Your task to perform on an android device: Clear the shopping cart on walmart.com. Search for macbook on walmart.com, select the first entry, add it to the cart, then select checkout. Image 0: 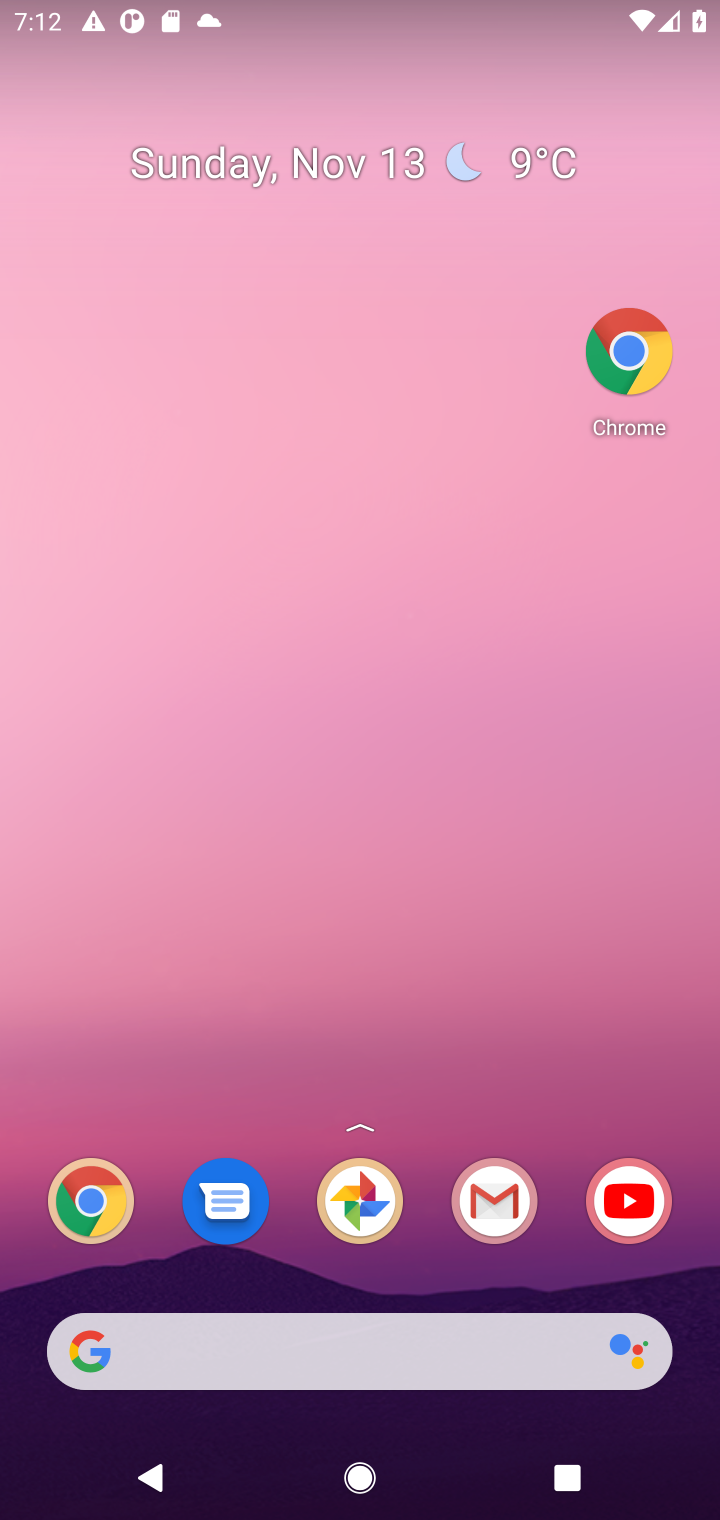
Step 0: drag from (422, 1286) to (255, 97)
Your task to perform on an android device: Clear the shopping cart on walmart.com. Search for macbook on walmart.com, select the first entry, add it to the cart, then select checkout. Image 1: 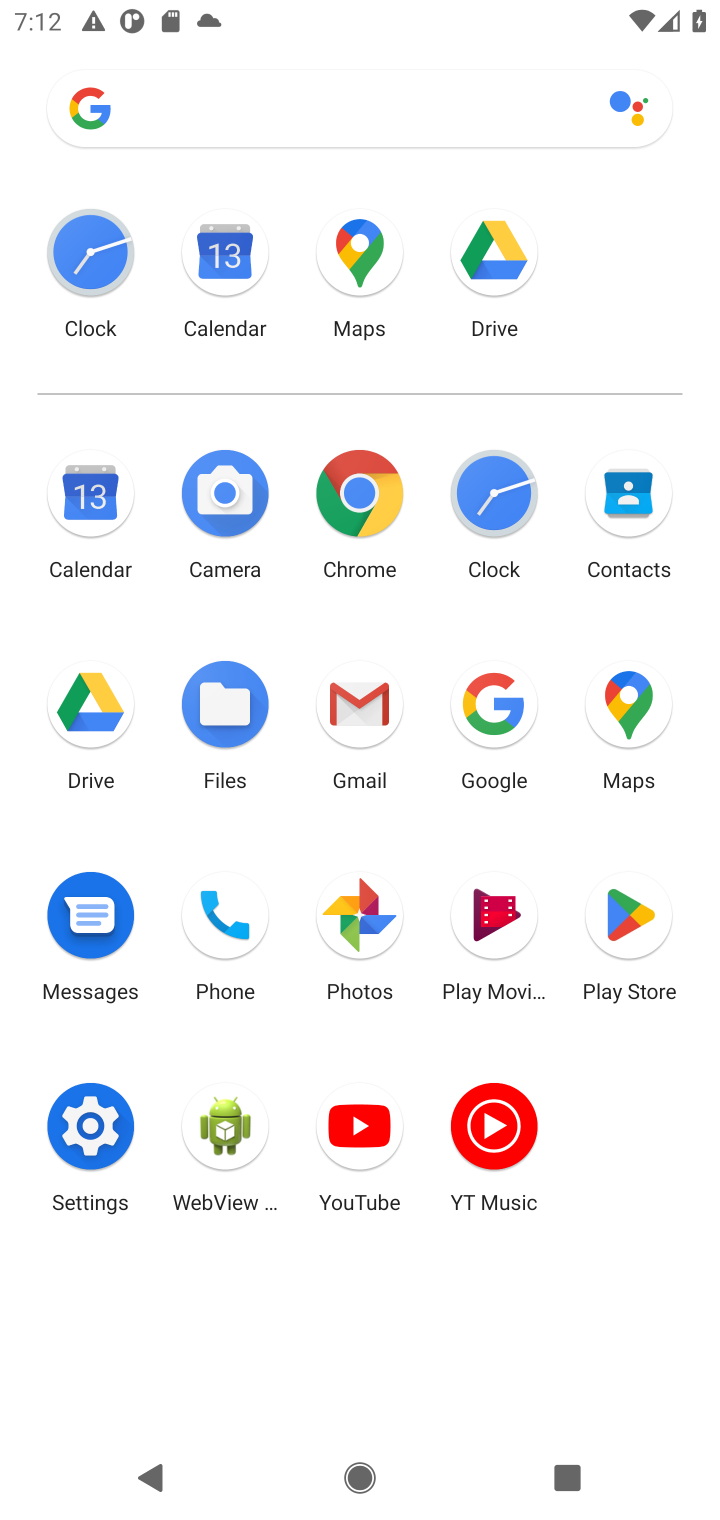
Step 1: click (357, 497)
Your task to perform on an android device: Clear the shopping cart on walmart.com. Search for macbook on walmart.com, select the first entry, add it to the cart, then select checkout. Image 2: 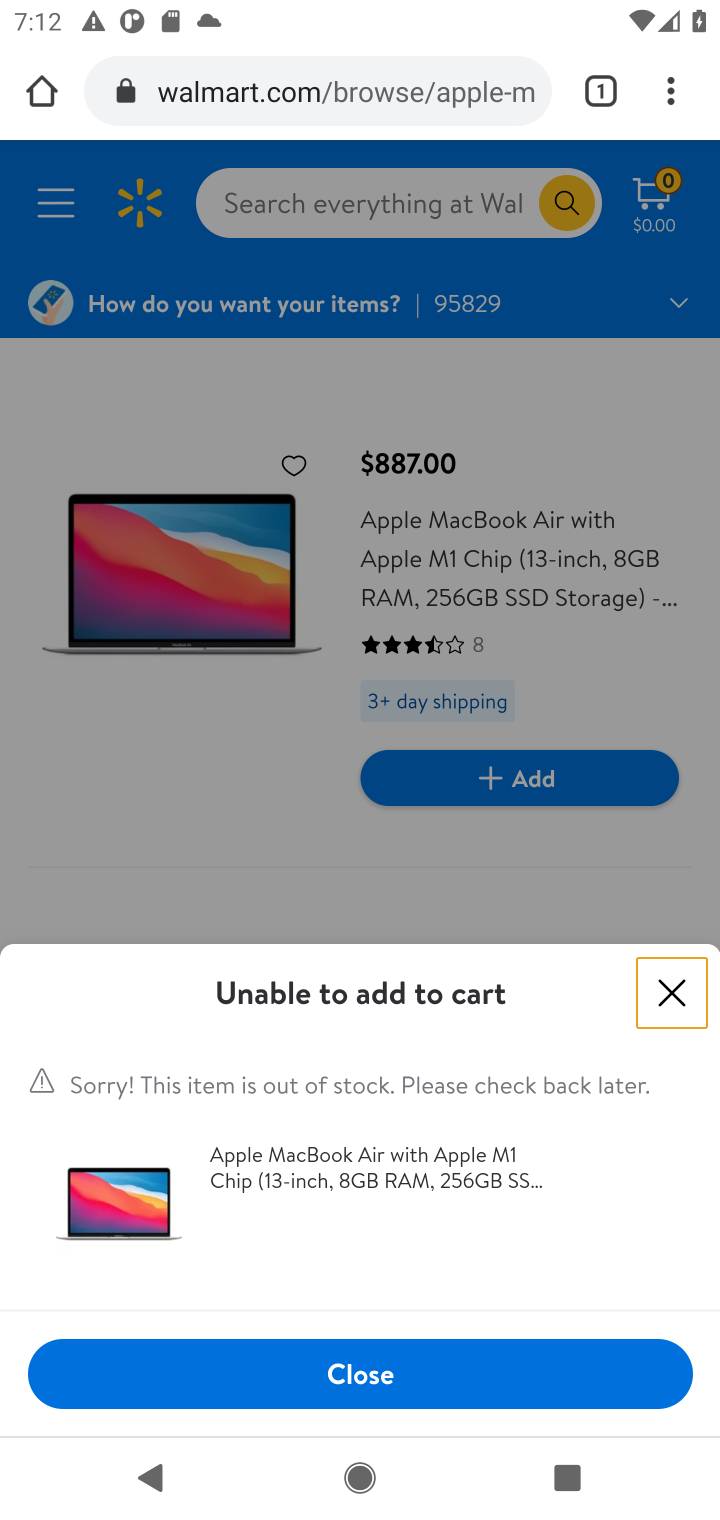
Step 2: click (504, 357)
Your task to perform on an android device: Clear the shopping cart on walmart.com. Search for macbook on walmart.com, select the first entry, add it to the cart, then select checkout. Image 3: 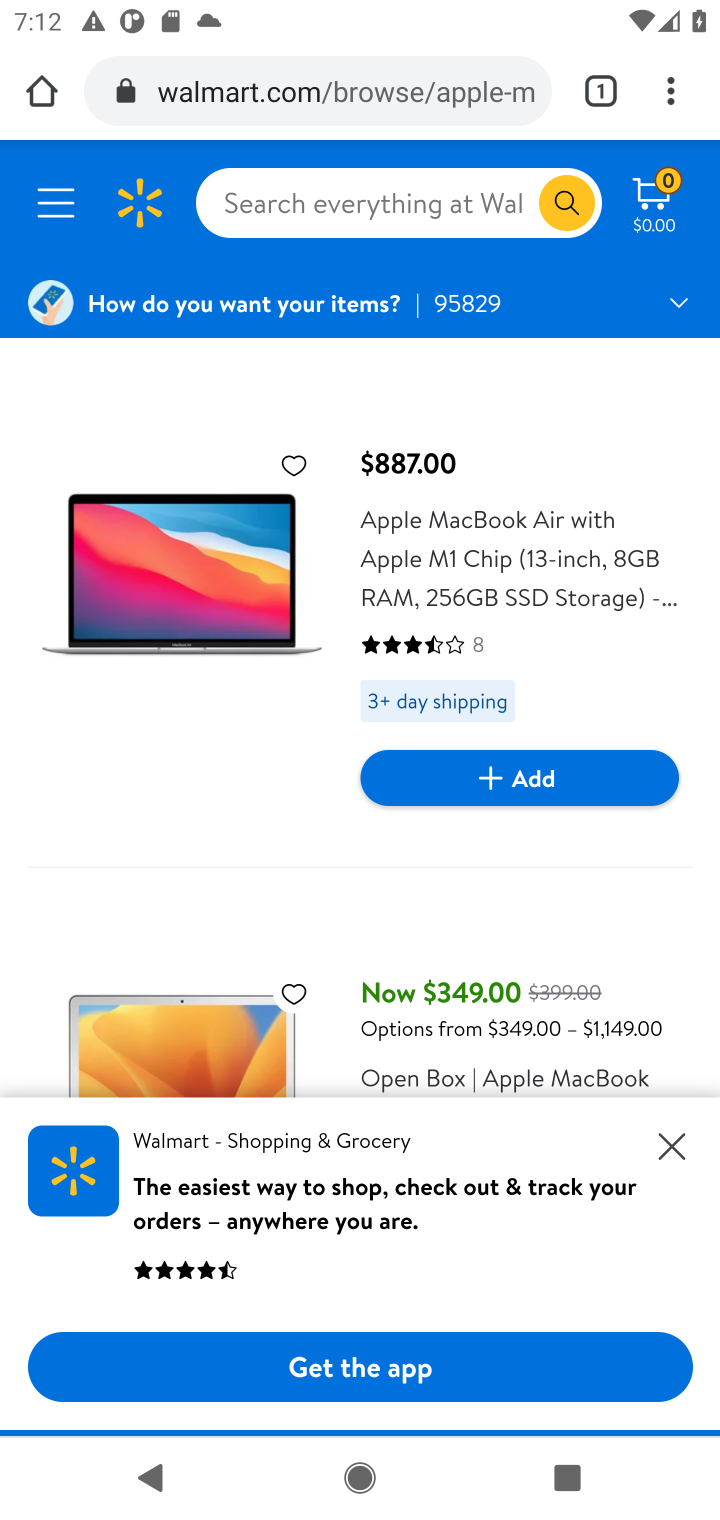
Step 3: click (645, 203)
Your task to perform on an android device: Clear the shopping cart on walmart.com. Search for macbook on walmart.com, select the first entry, add it to the cart, then select checkout. Image 4: 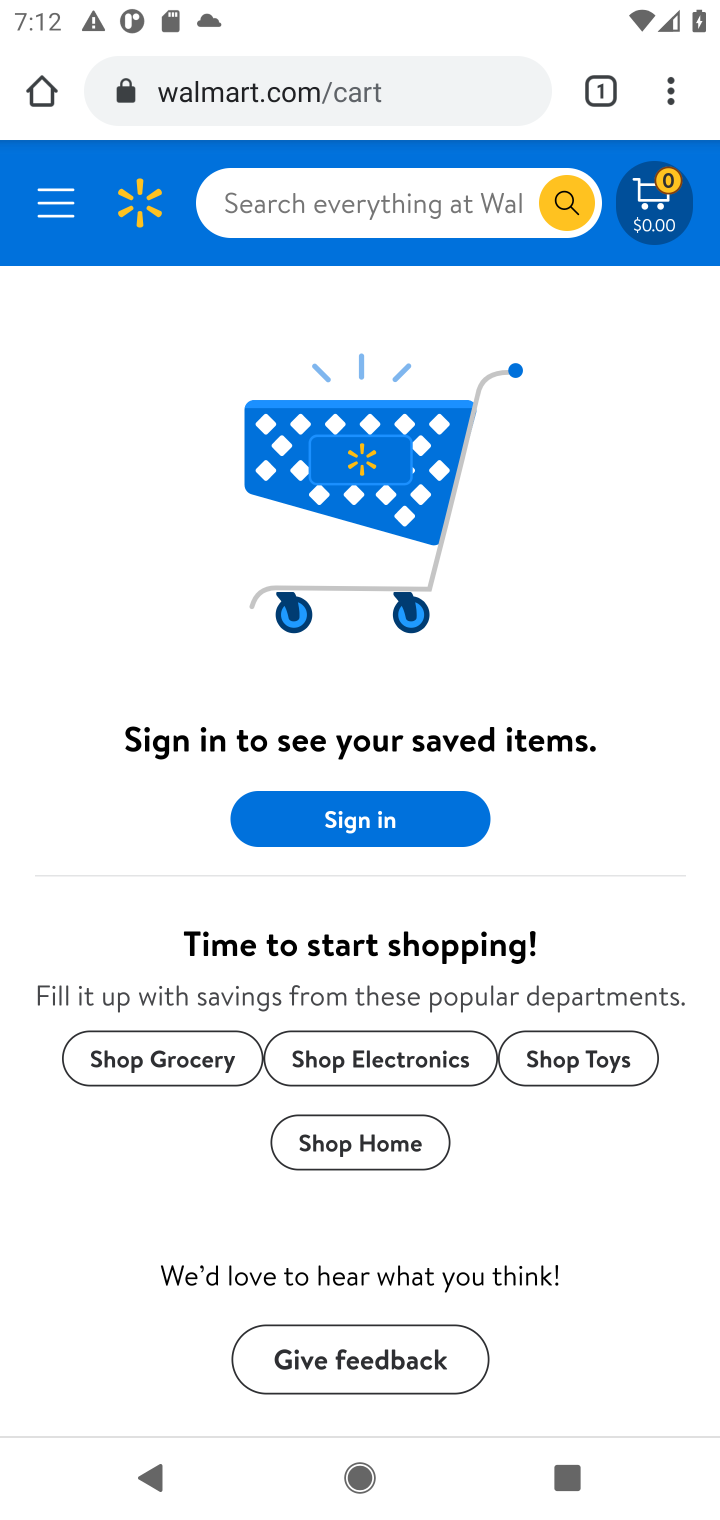
Step 4: click (352, 198)
Your task to perform on an android device: Clear the shopping cart on walmart.com. Search for macbook on walmart.com, select the first entry, add it to the cart, then select checkout. Image 5: 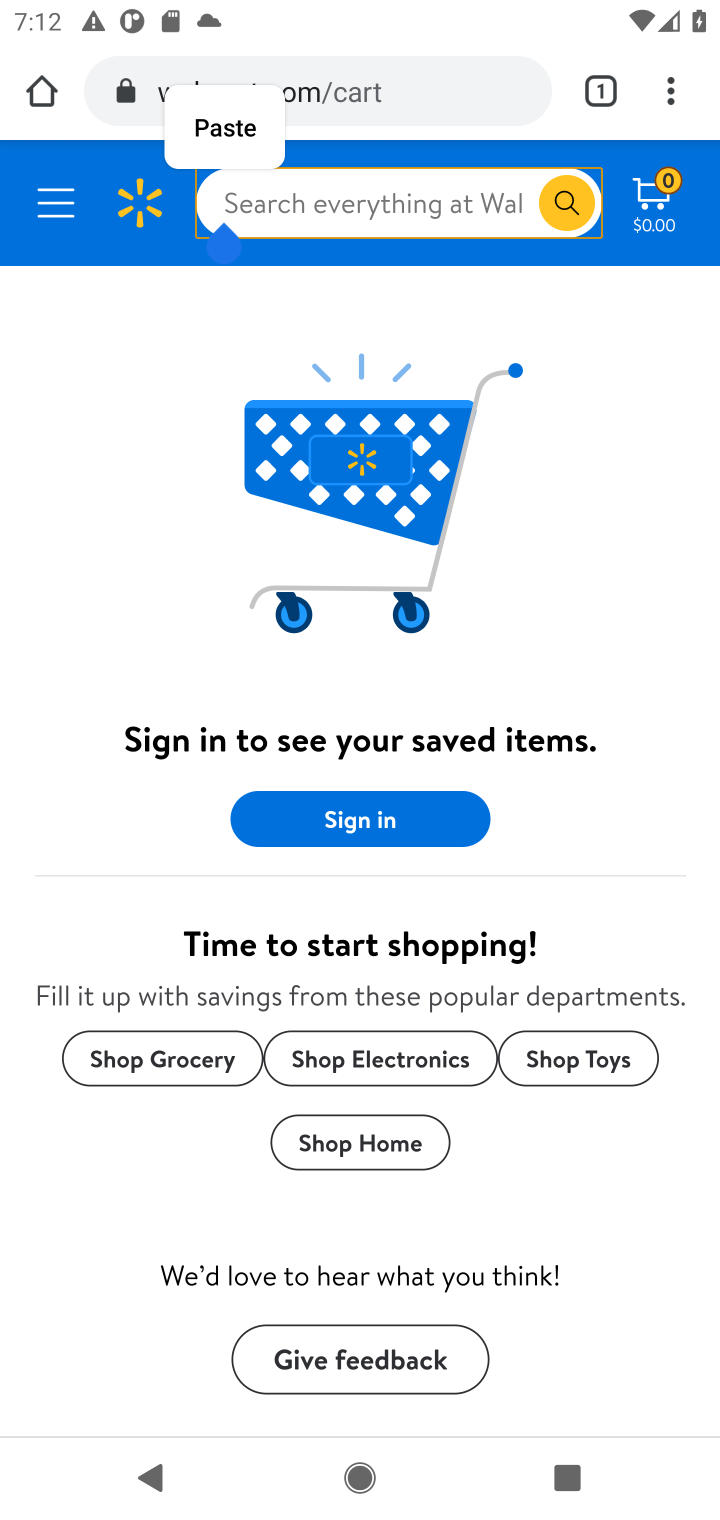
Step 5: type "macbookk"
Your task to perform on an android device: Clear the shopping cart on walmart.com. Search for macbook on walmart.com, select the first entry, add it to the cart, then select checkout. Image 6: 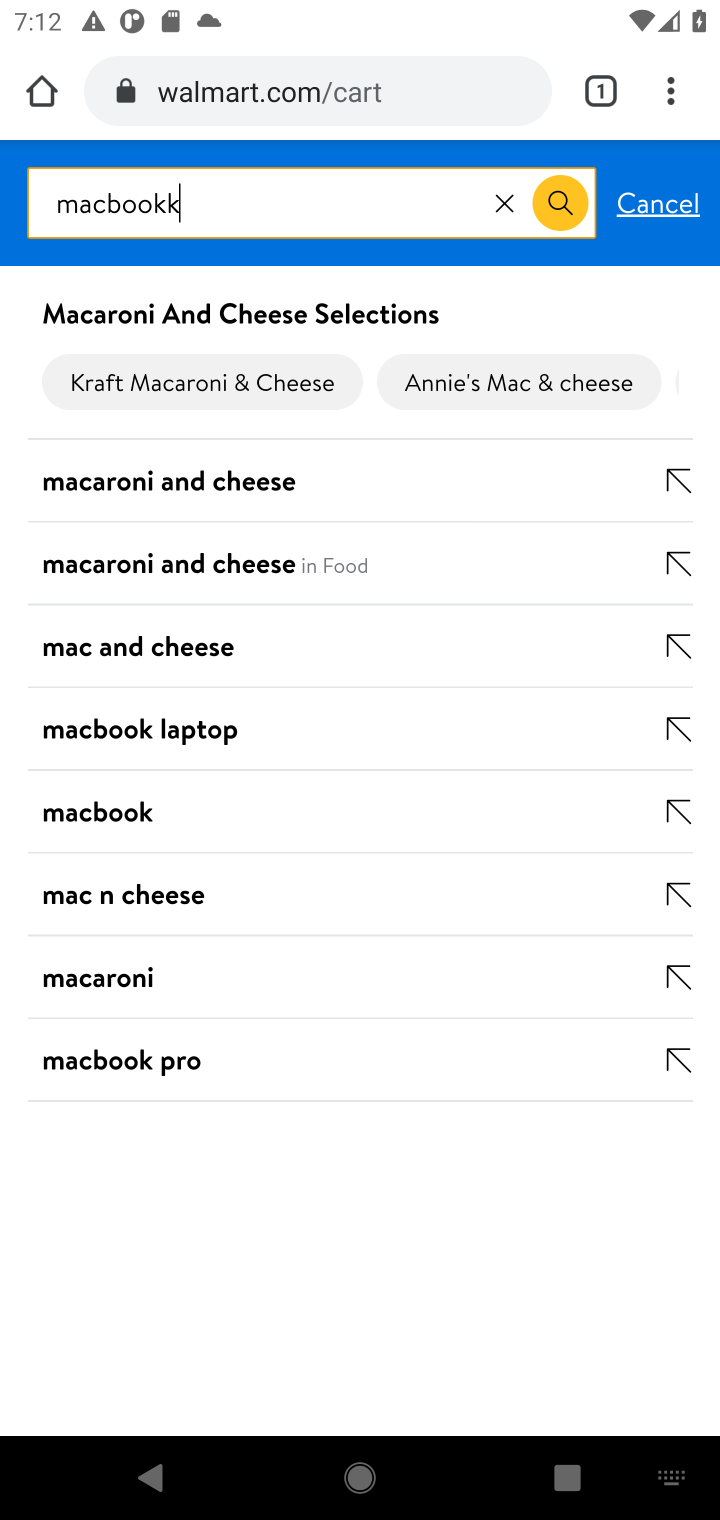
Step 6: press enter
Your task to perform on an android device: Clear the shopping cart on walmart.com. Search for macbook on walmart.com, select the first entry, add it to the cart, then select checkout. Image 7: 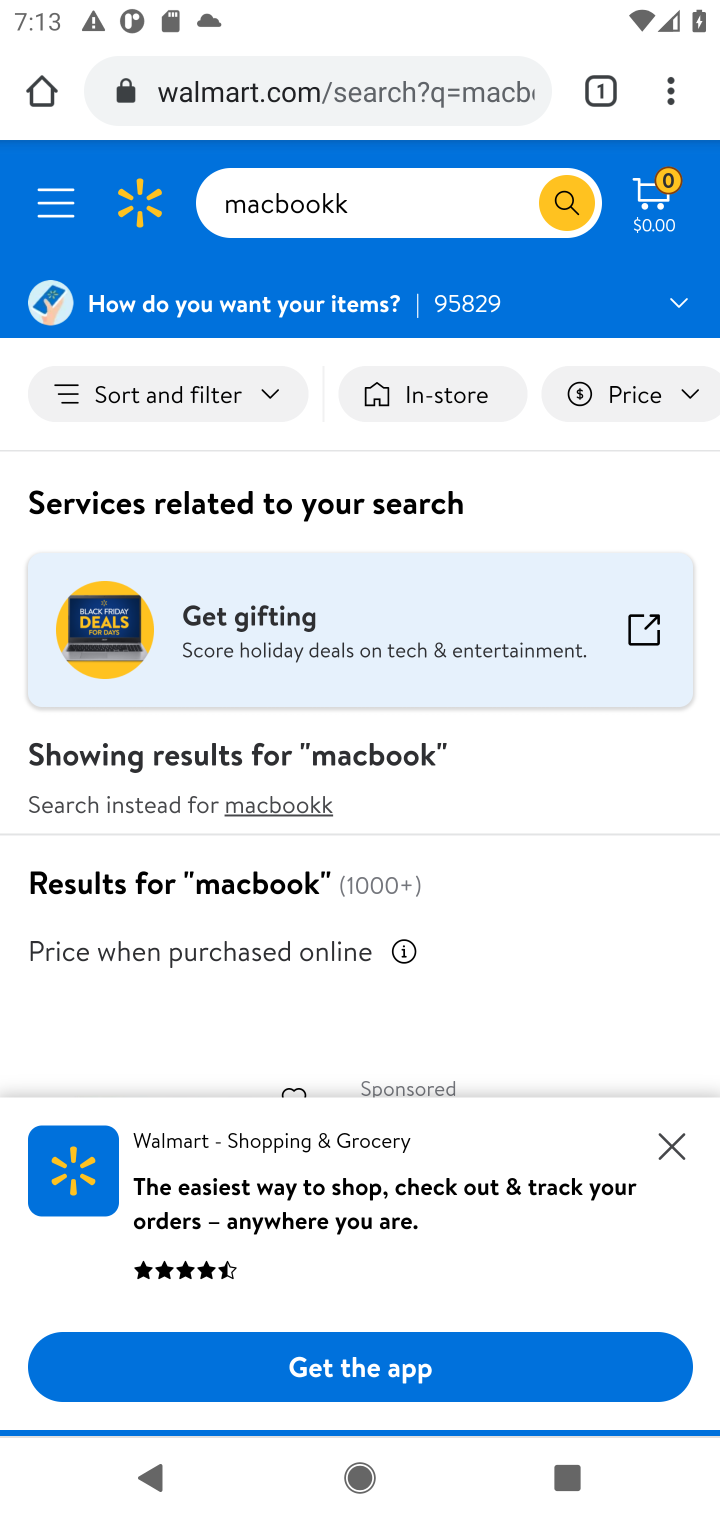
Step 7: drag from (455, 993) to (422, 381)
Your task to perform on an android device: Clear the shopping cart on walmart.com. Search for macbook on walmart.com, select the first entry, add it to the cart, then select checkout. Image 8: 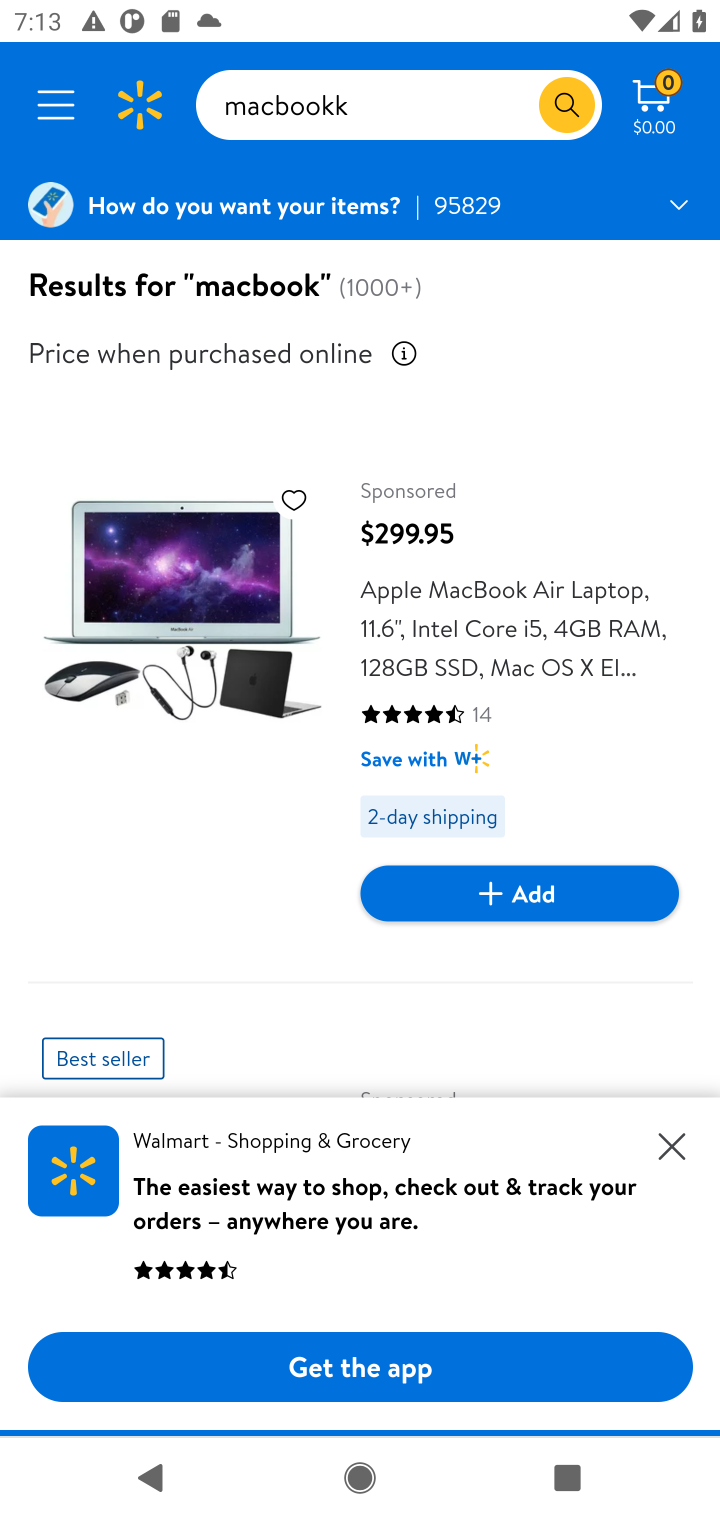
Step 8: drag from (493, 994) to (465, 398)
Your task to perform on an android device: Clear the shopping cart on walmart.com. Search for macbook on walmart.com, select the first entry, add it to the cart, then select checkout. Image 9: 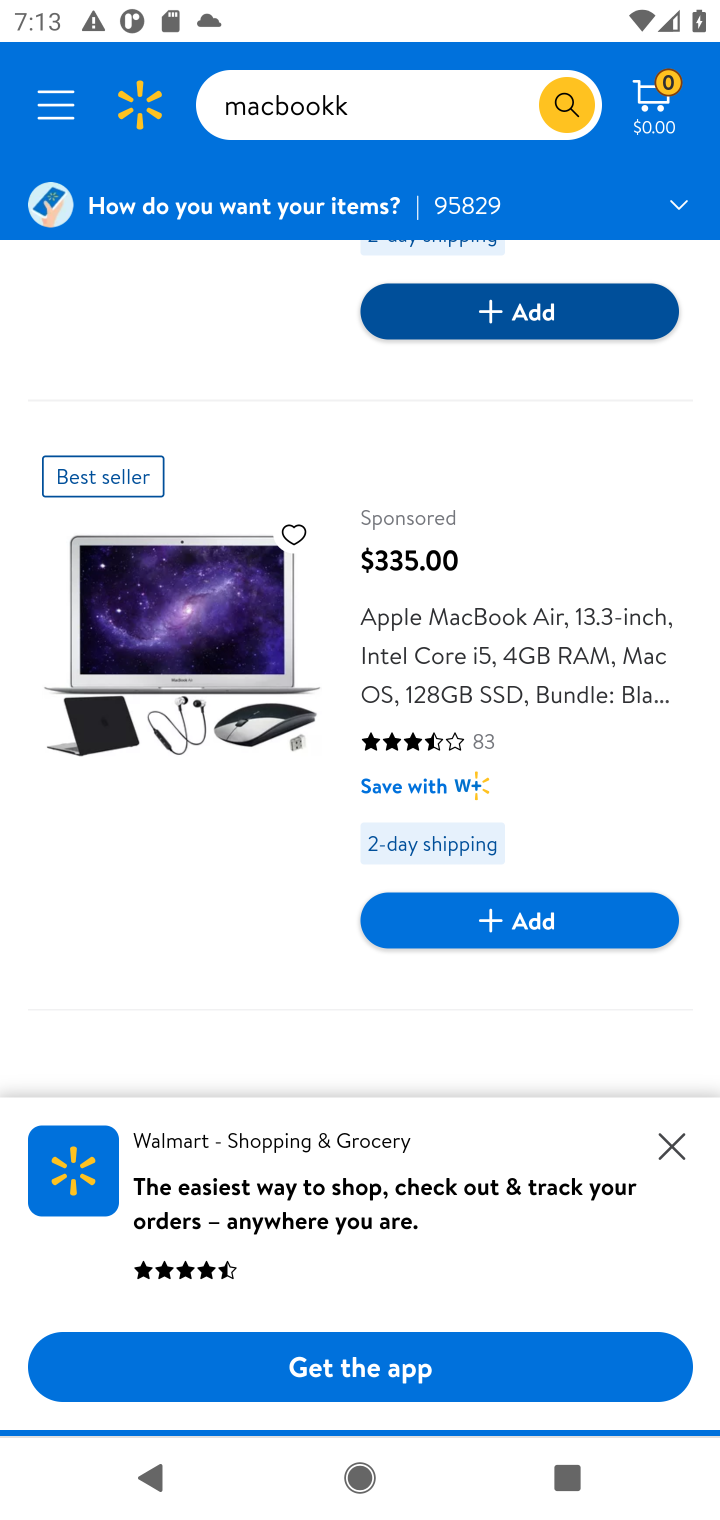
Step 9: drag from (503, 1040) to (498, 510)
Your task to perform on an android device: Clear the shopping cart on walmart.com. Search for macbook on walmart.com, select the first entry, add it to the cart, then select checkout. Image 10: 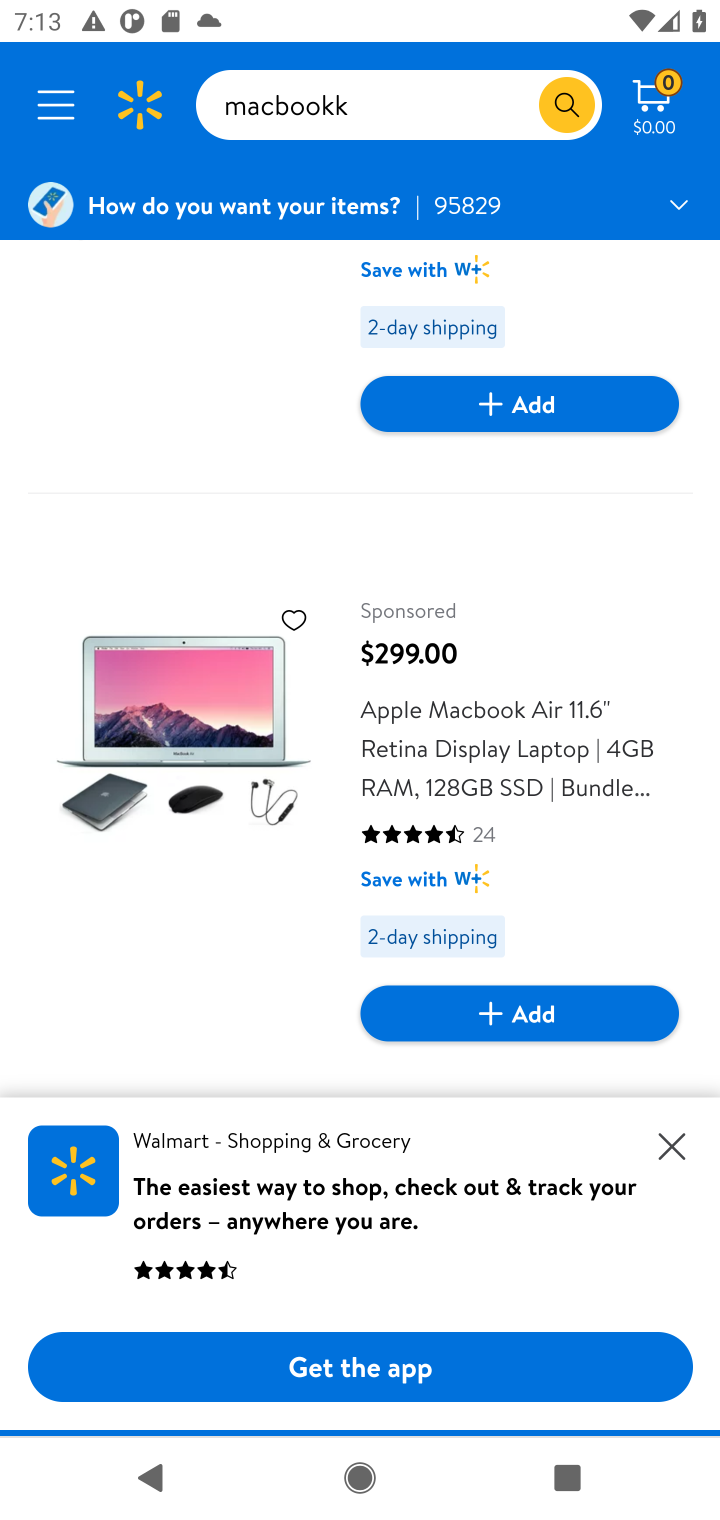
Step 10: drag from (243, 970) to (273, 277)
Your task to perform on an android device: Clear the shopping cart on walmart.com. Search for macbook on walmart.com, select the first entry, add it to the cart, then select checkout. Image 11: 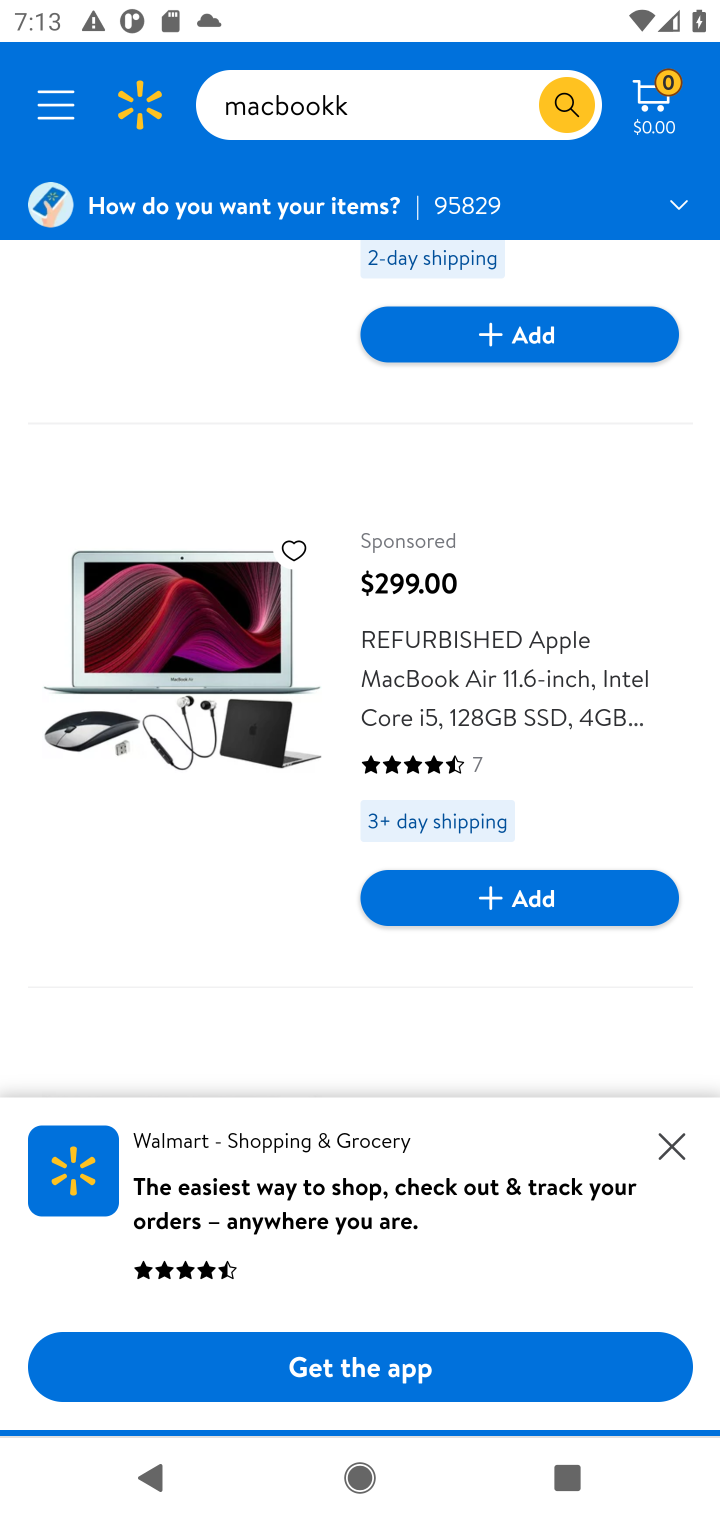
Step 11: drag from (257, 944) to (133, 404)
Your task to perform on an android device: Clear the shopping cart on walmart.com. Search for macbook on walmart.com, select the first entry, add it to the cart, then select checkout. Image 12: 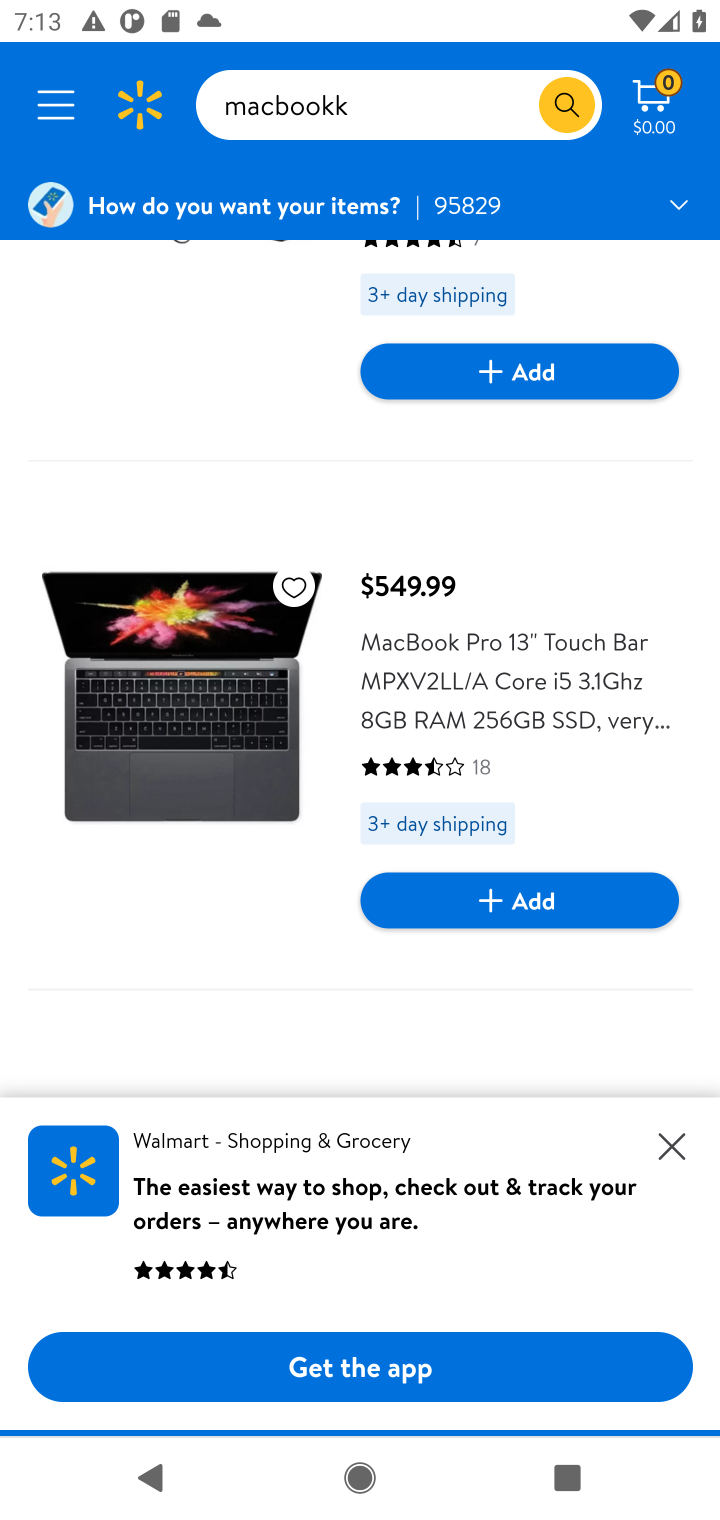
Step 12: click (549, 916)
Your task to perform on an android device: Clear the shopping cart on walmart.com. Search for macbook on walmart.com, select the first entry, add it to the cart, then select checkout. Image 13: 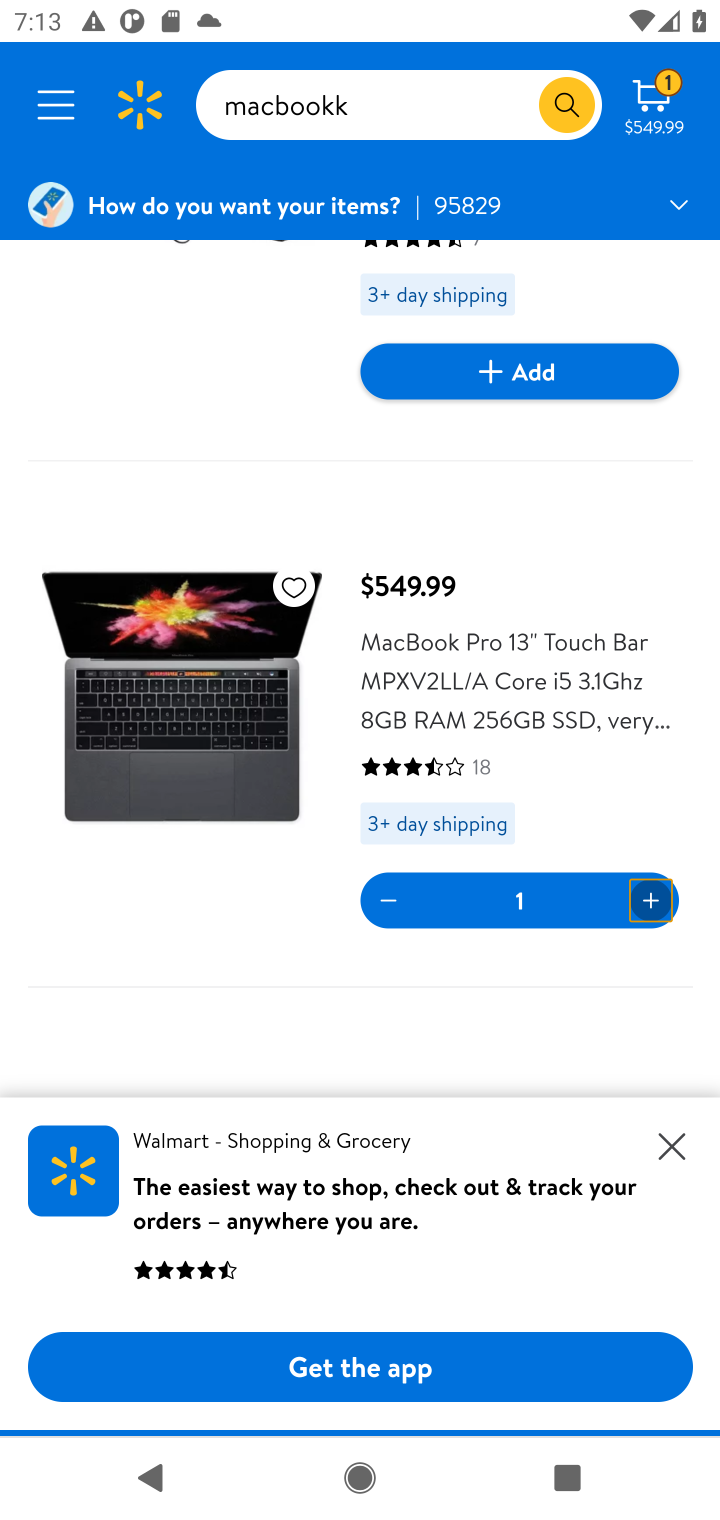
Step 13: click (647, 103)
Your task to perform on an android device: Clear the shopping cart on walmart.com. Search for macbook on walmart.com, select the first entry, add it to the cart, then select checkout. Image 14: 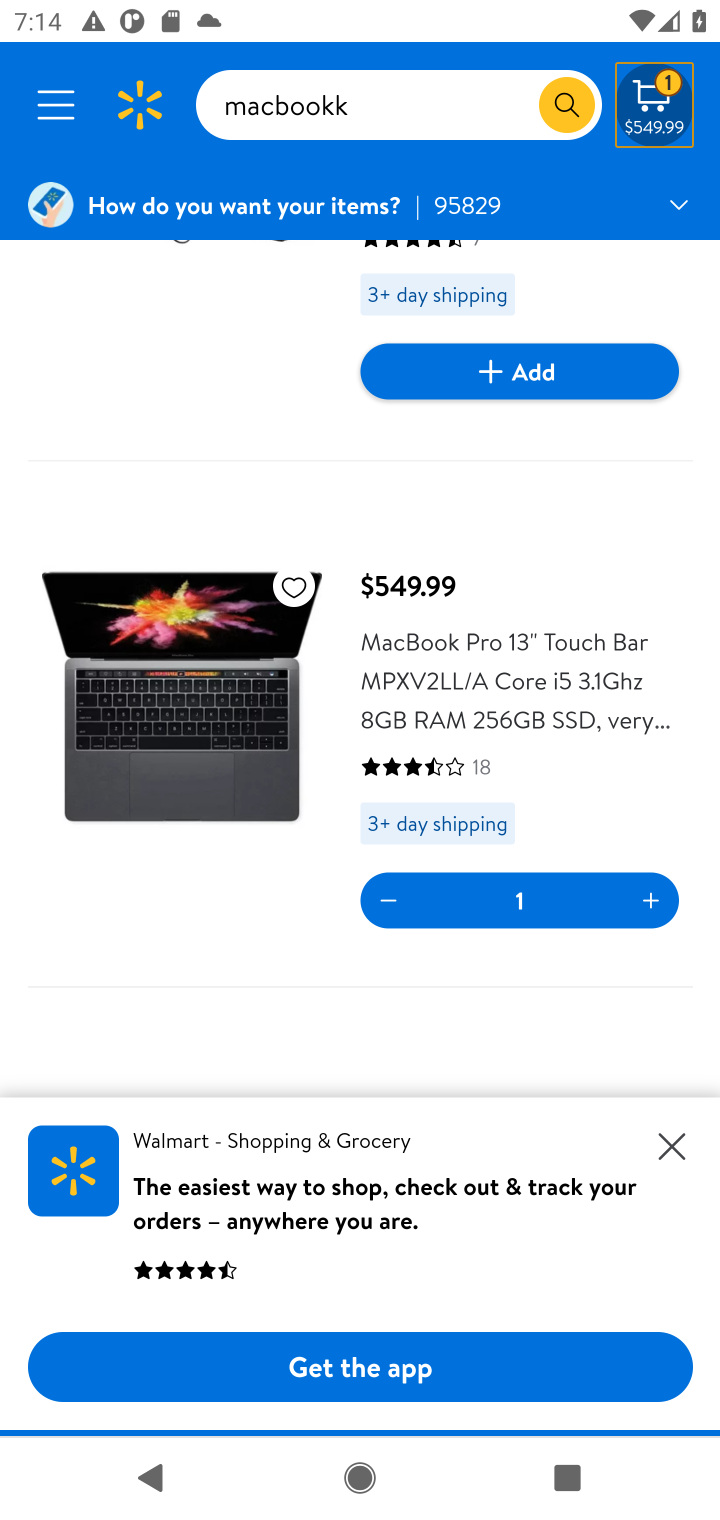
Step 14: click (647, 103)
Your task to perform on an android device: Clear the shopping cart on walmart.com. Search for macbook on walmart.com, select the first entry, add it to the cart, then select checkout. Image 15: 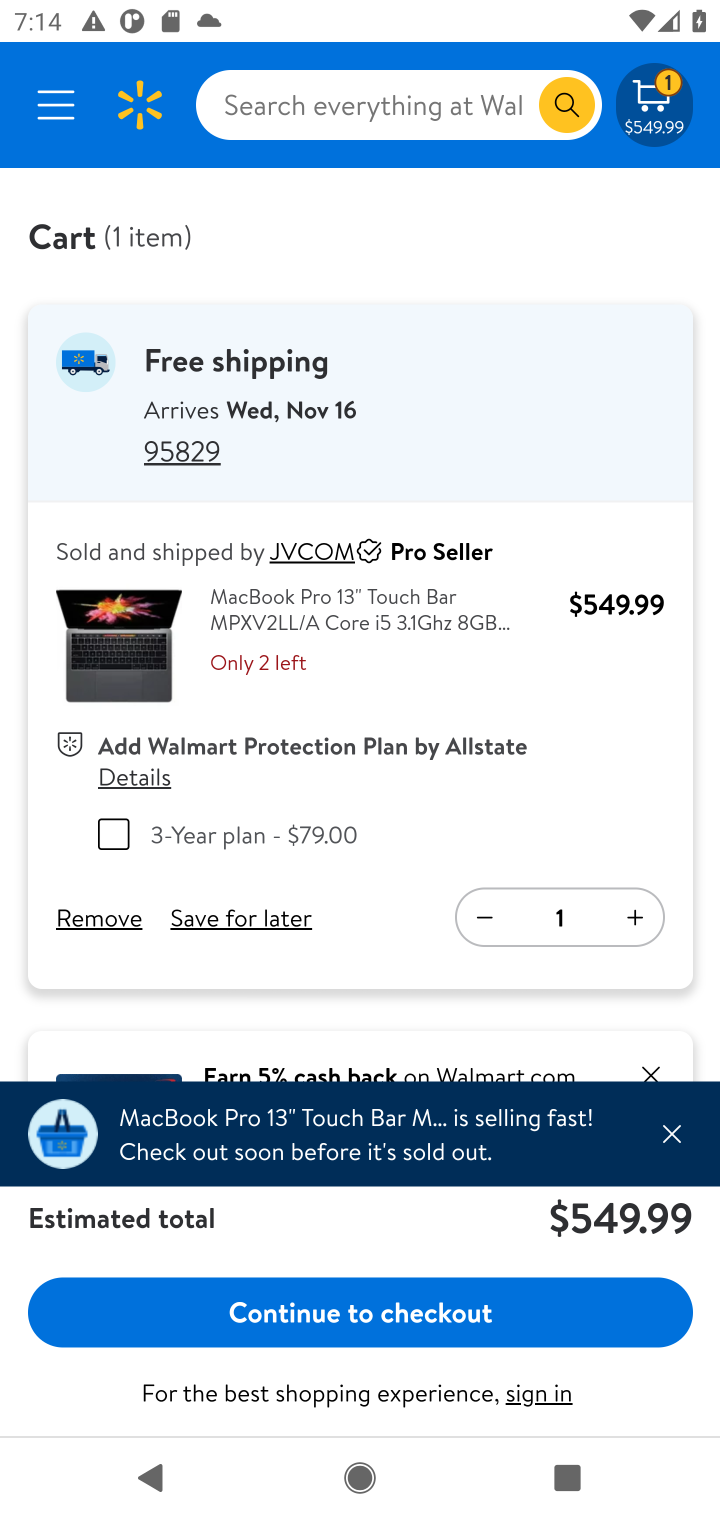
Step 15: click (421, 1307)
Your task to perform on an android device: Clear the shopping cart on walmart.com. Search for macbook on walmart.com, select the first entry, add it to the cart, then select checkout. Image 16: 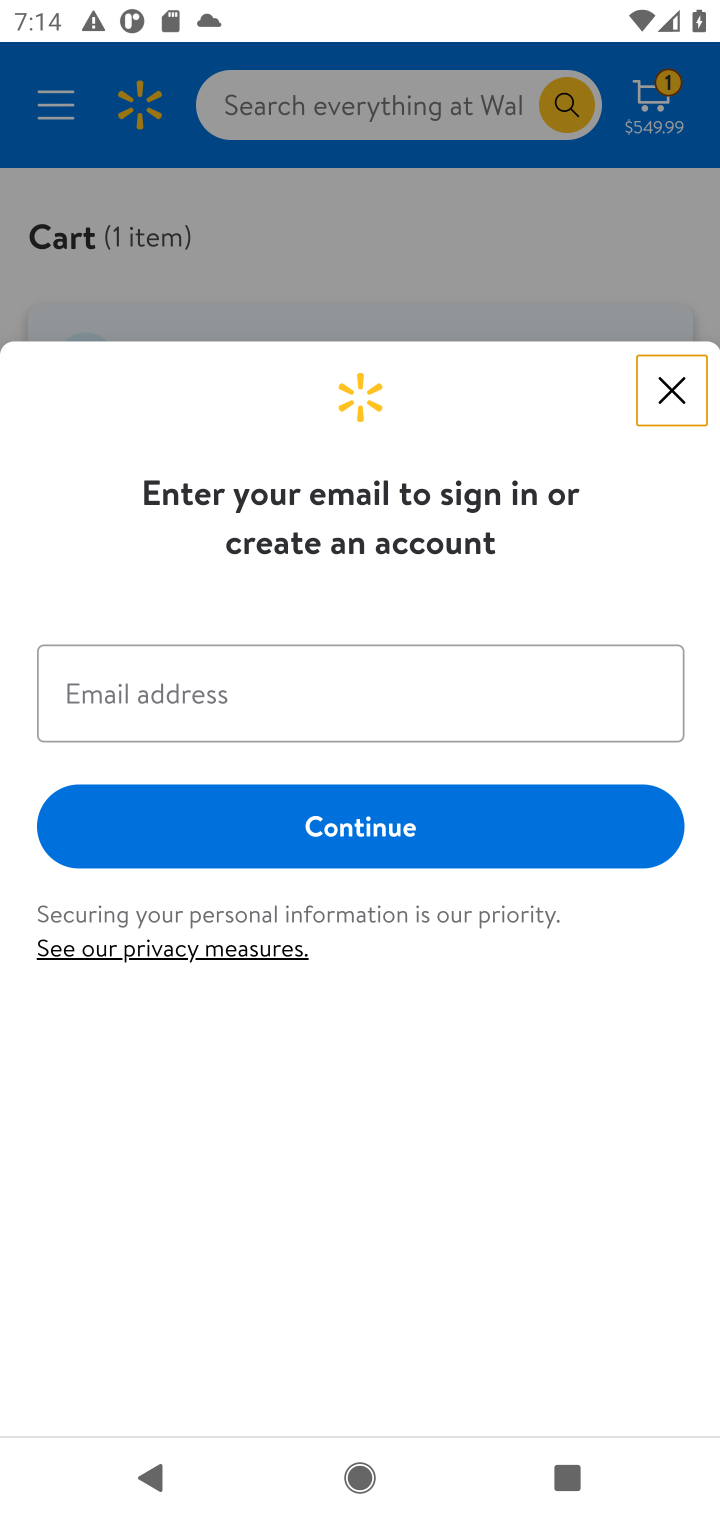
Step 16: task complete